Your task to perform on an android device: change the clock display to analog Image 0: 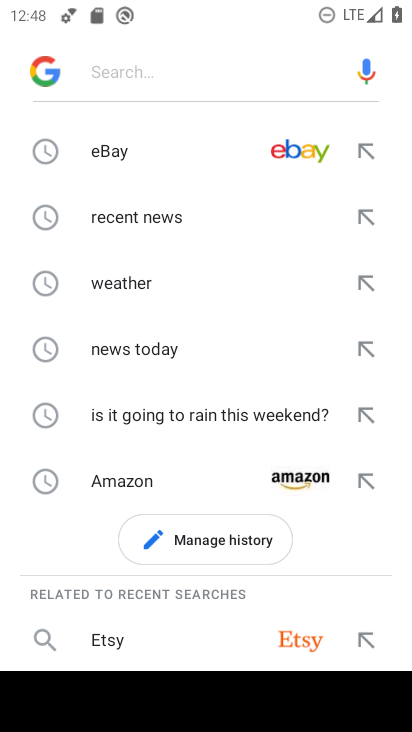
Step 0: press home button
Your task to perform on an android device: change the clock display to analog Image 1: 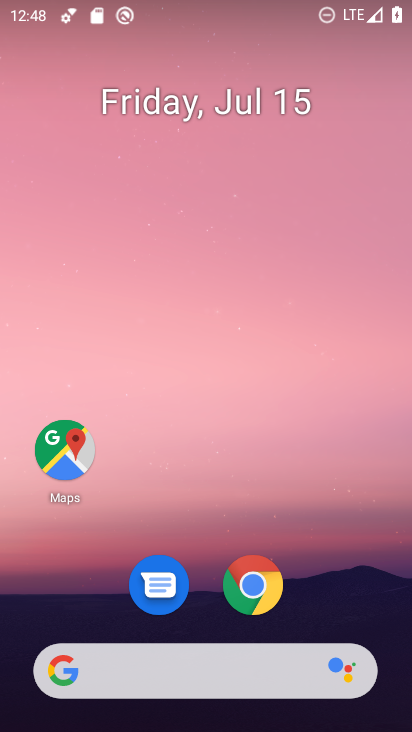
Step 1: drag from (314, 513) to (292, 105)
Your task to perform on an android device: change the clock display to analog Image 2: 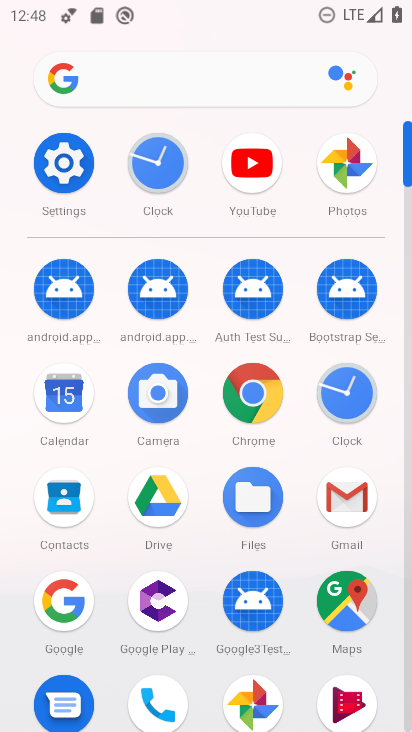
Step 2: click (327, 398)
Your task to perform on an android device: change the clock display to analog Image 3: 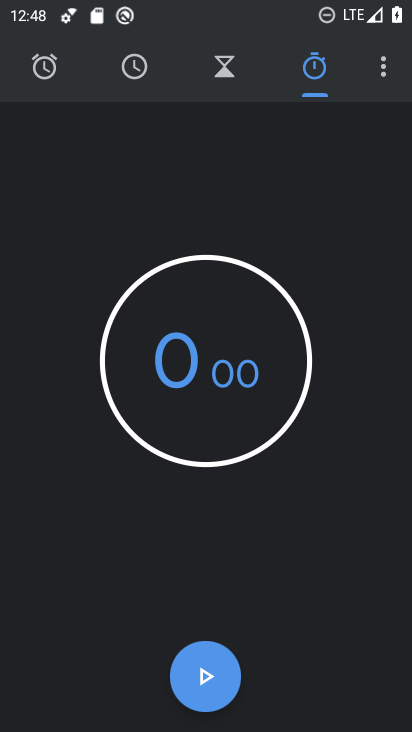
Step 3: click (136, 74)
Your task to perform on an android device: change the clock display to analog Image 4: 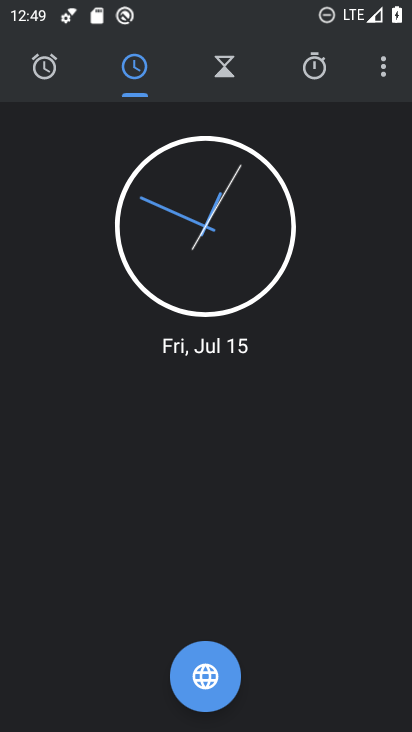
Step 4: task complete